Your task to perform on an android device: toggle translation in the chrome app Image 0: 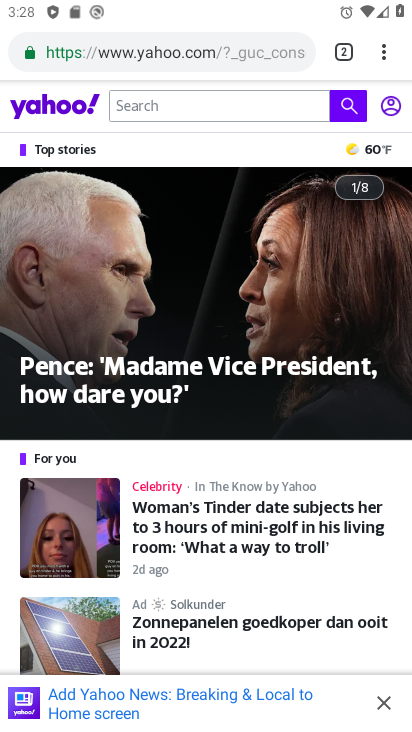
Step 0: drag from (383, 47) to (182, 626)
Your task to perform on an android device: toggle translation in the chrome app Image 1: 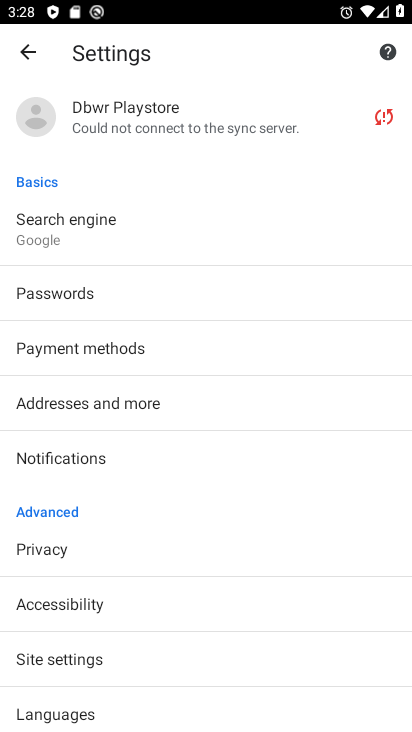
Step 1: click (57, 712)
Your task to perform on an android device: toggle translation in the chrome app Image 2: 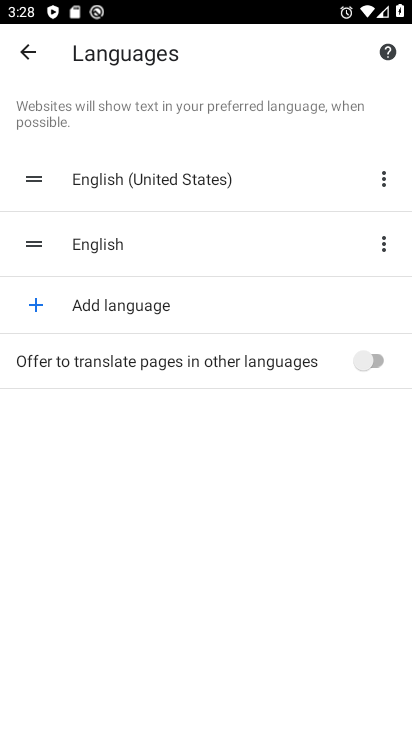
Step 2: click (353, 360)
Your task to perform on an android device: toggle translation in the chrome app Image 3: 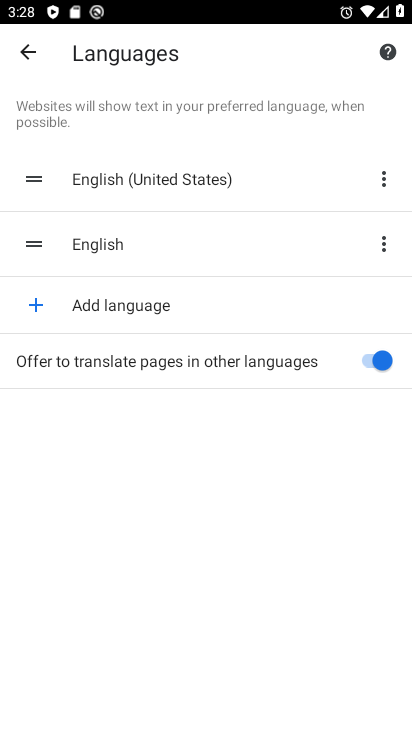
Step 3: task complete